Your task to perform on an android device: Go to network settings Image 0: 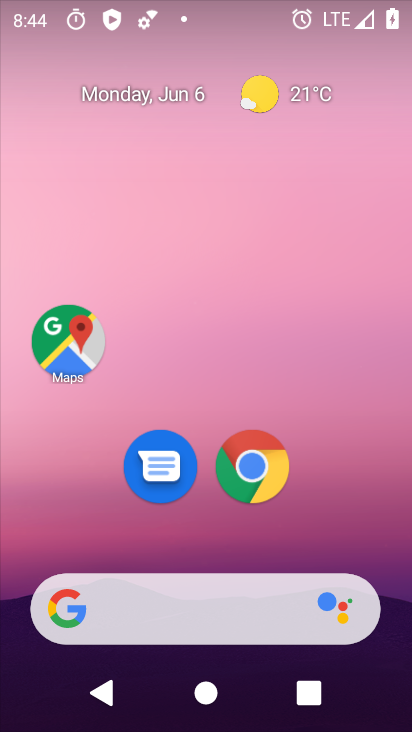
Step 0: drag from (239, 530) to (247, 105)
Your task to perform on an android device: Go to network settings Image 1: 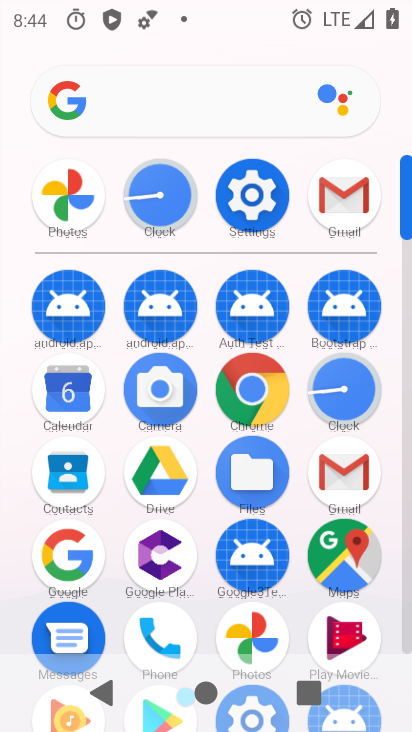
Step 1: click (253, 195)
Your task to perform on an android device: Go to network settings Image 2: 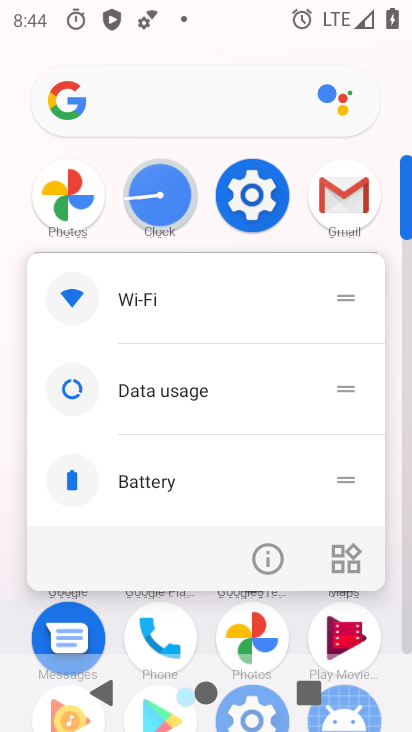
Step 2: click (261, 583)
Your task to perform on an android device: Go to network settings Image 3: 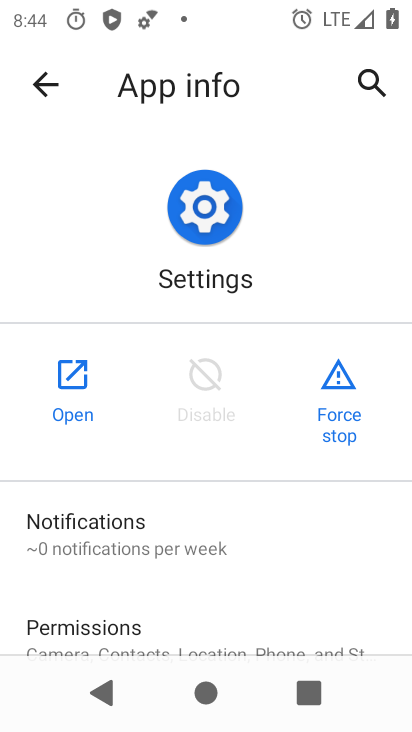
Step 3: click (71, 345)
Your task to perform on an android device: Go to network settings Image 4: 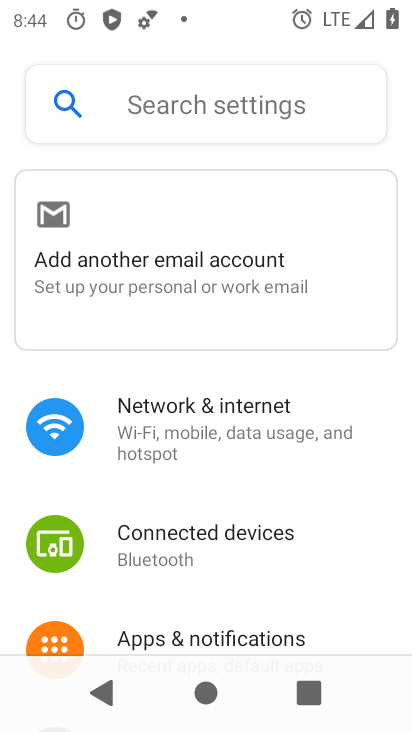
Step 4: click (215, 417)
Your task to perform on an android device: Go to network settings Image 5: 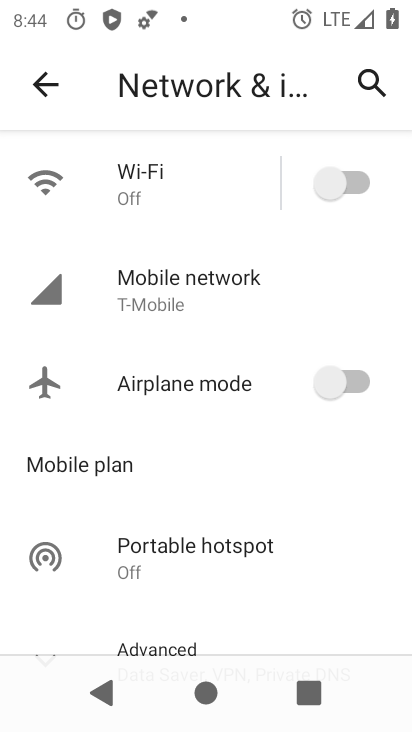
Step 5: task complete